Your task to perform on an android device: Open battery settings Image 0: 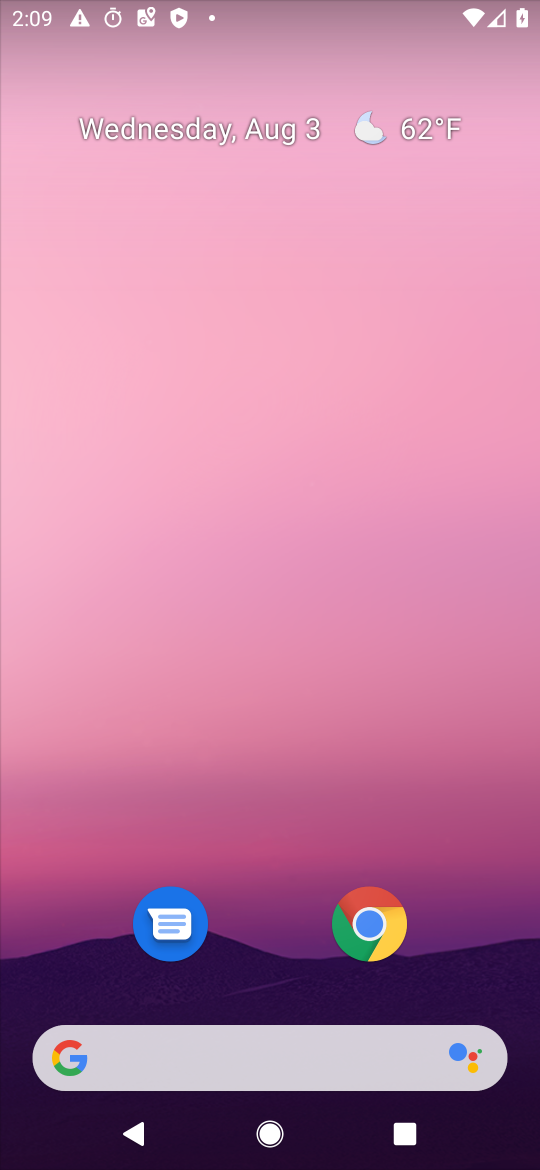
Step 0: press home button
Your task to perform on an android device: Open battery settings Image 1: 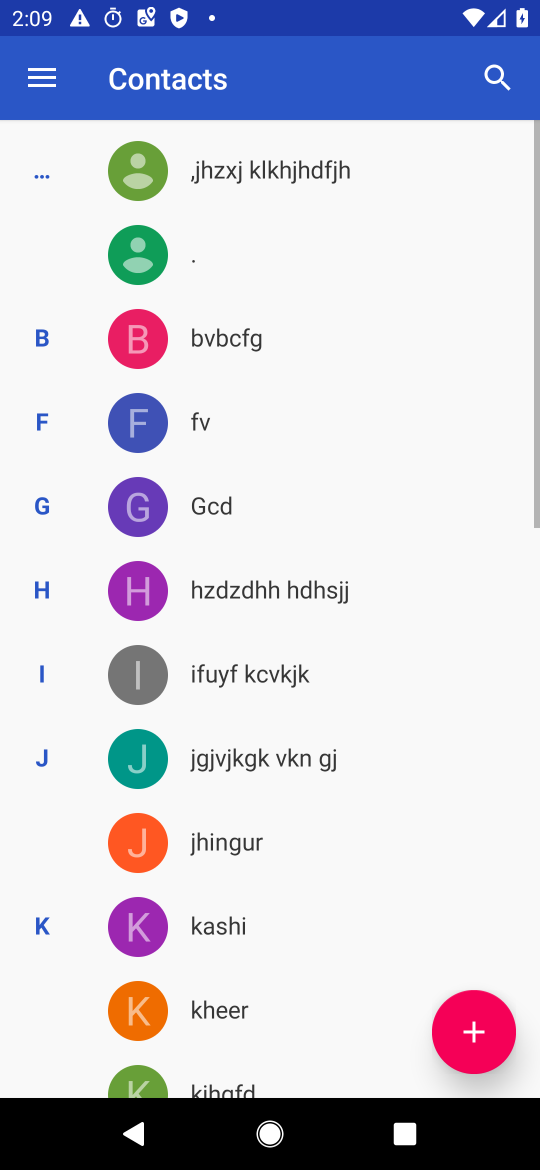
Step 1: press home button
Your task to perform on an android device: Open battery settings Image 2: 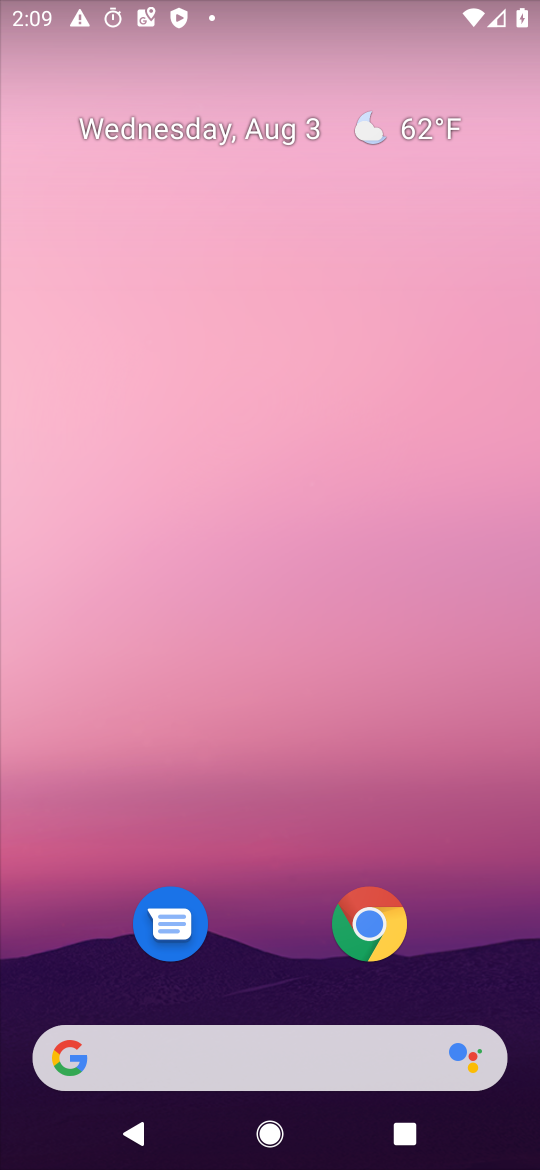
Step 2: press home button
Your task to perform on an android device: Open battery settings Image 3: 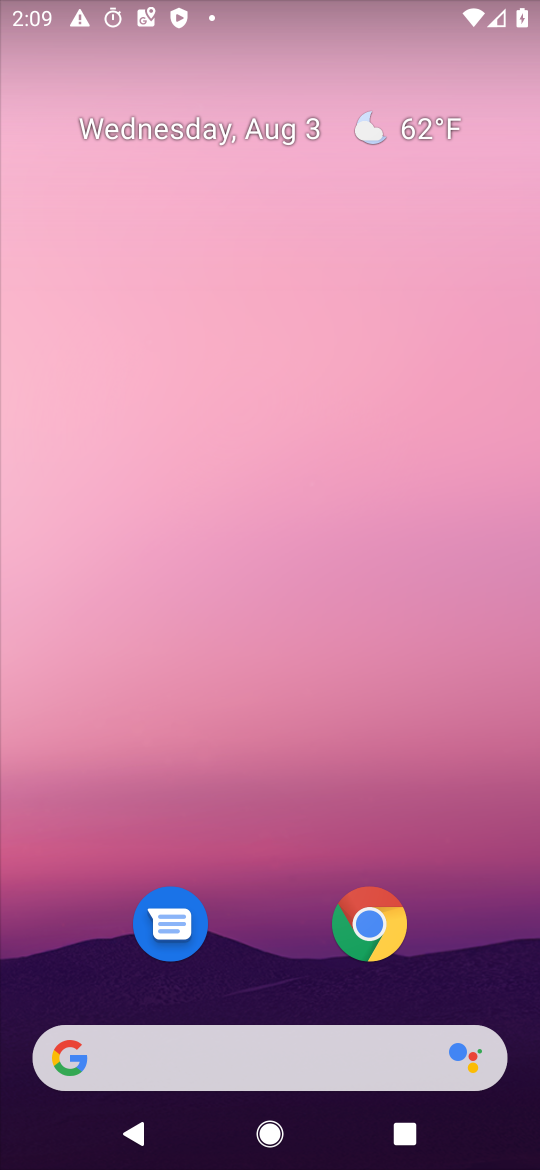
Step 3: drag from (291, 929) to (285, 69)
Your task to perform on an android device: Open battery settings Image 4: 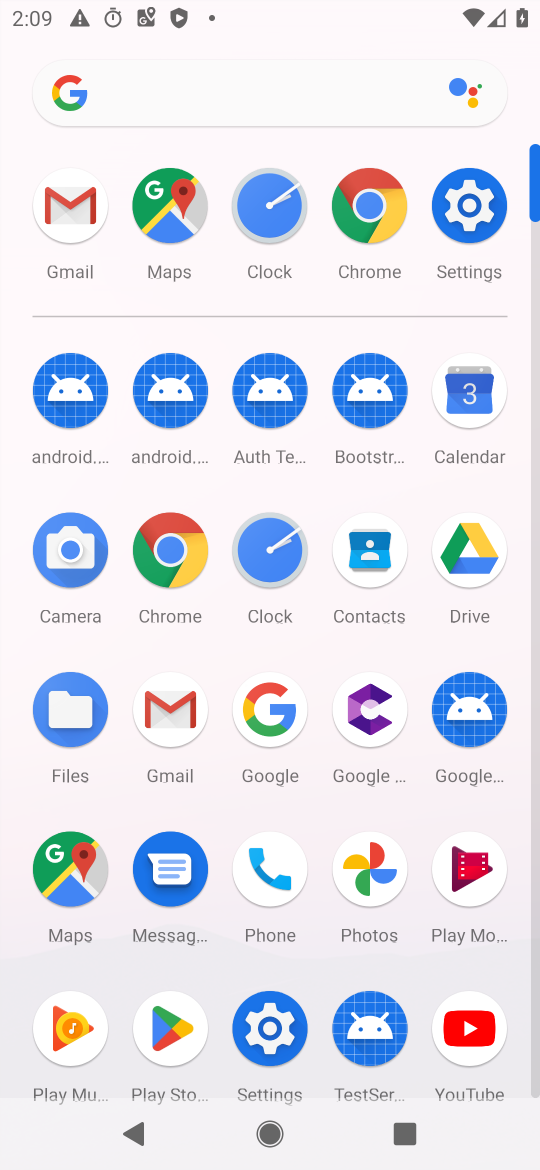
Step 4: click (470, 192)
Your task to perform on an android device: Open battery settings Image 5: 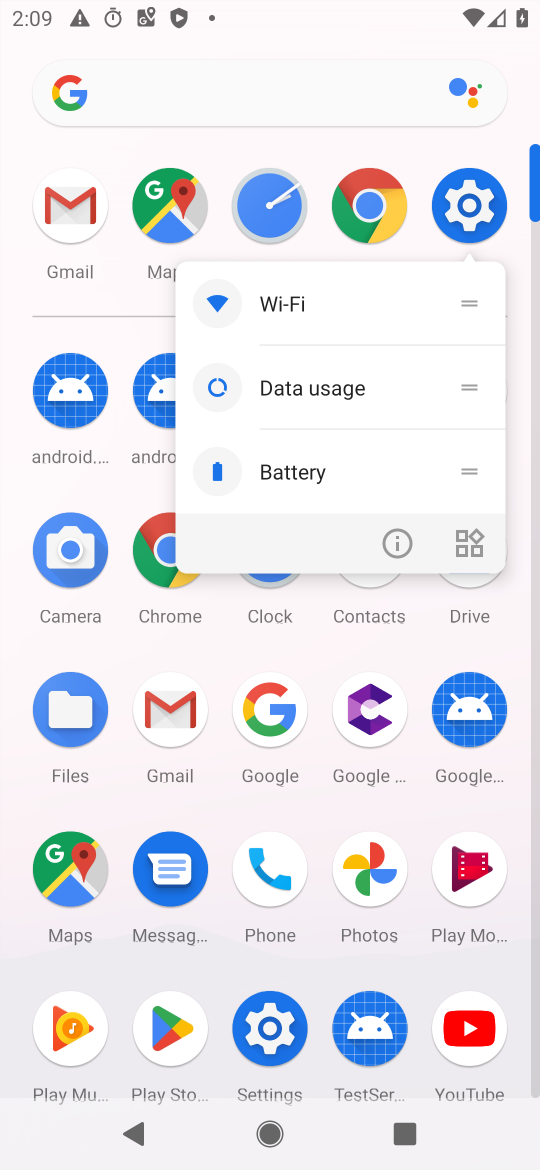
Step 5: click (470, 195)
Your task to perform on an android device: Open battery settings Image 6: 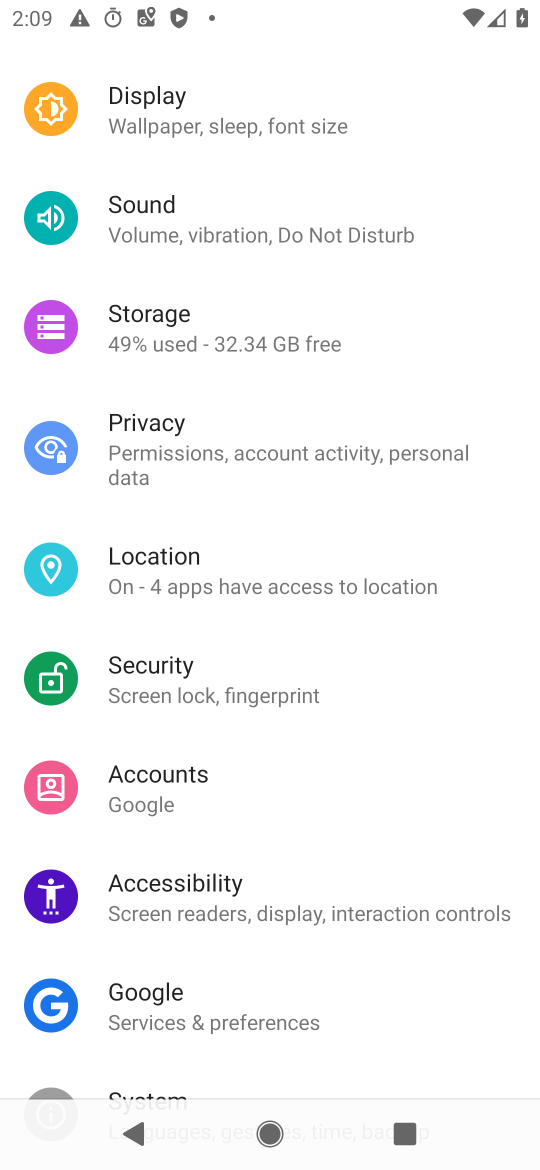
Step 6: drag from (185, 199) to (169, 829)
Your task to perform on an android device: Open battery settings Image 7: 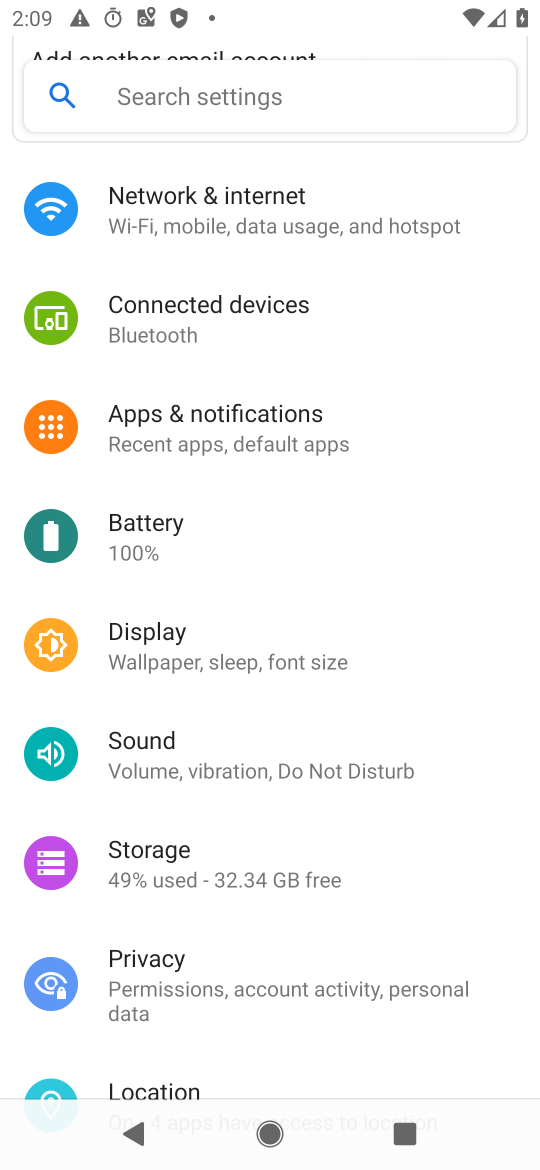
Step 7: click (214, 534)
Your task to perform on an android device: Open battery settings Image 8: 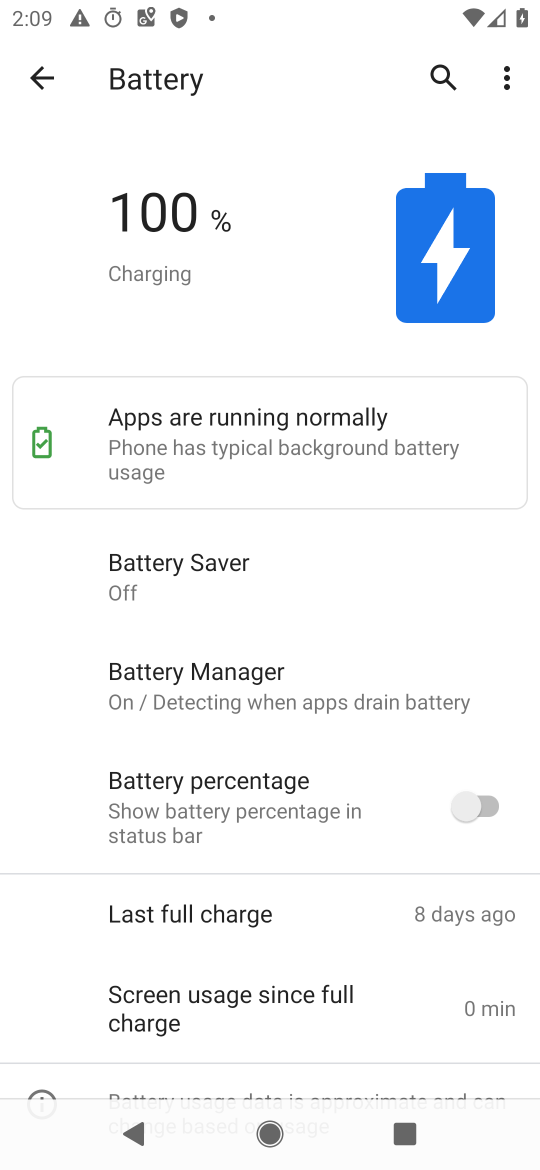
Step 8: click (504, 67)
Your task to perform on an android device: Open battery settings Image 9: 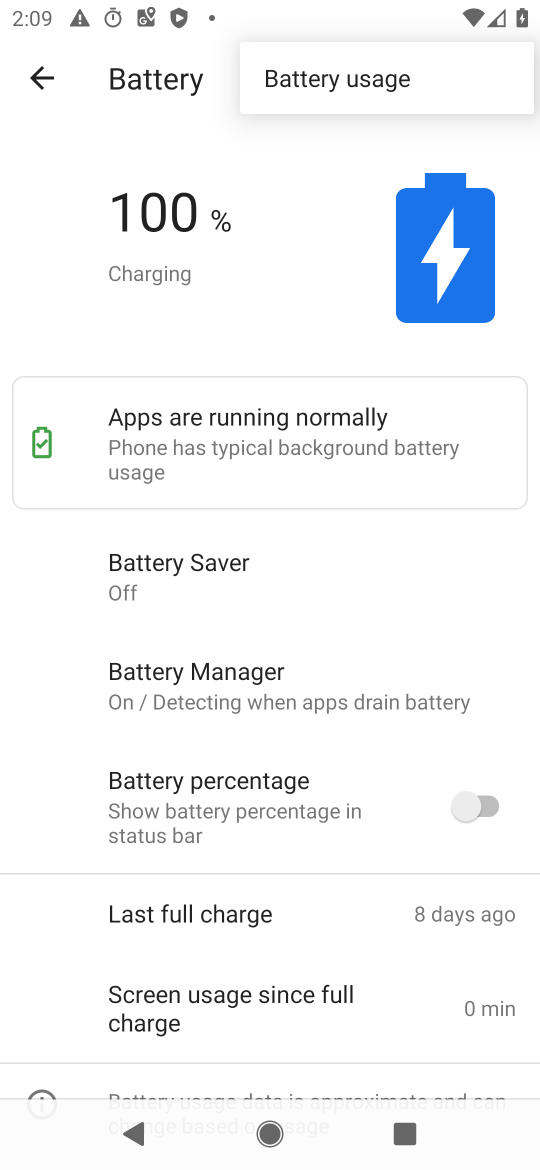
Step 9: task complete